Your task to perform on an android device: Open wifi settings Image 0: 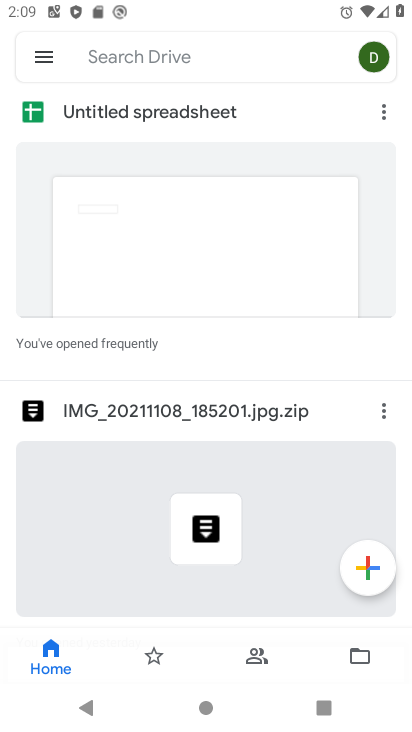
Step 0: press home button
Your task to perform on an android device: Open wifi settings Image 1: 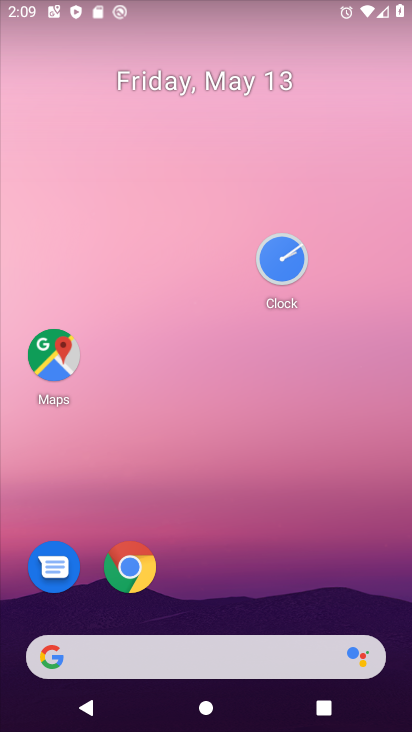
Step 1: drag from (217, 576) to (229, 256)
Your task to perform on an android device: Open wifi settings Image 2: 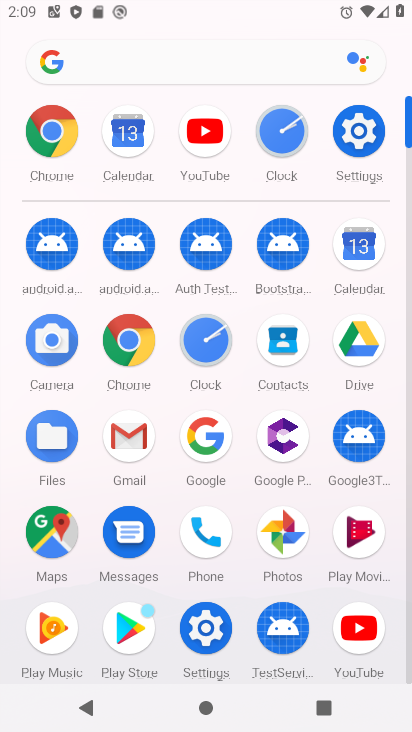
Step 2: click (353, 168)
Your task to perform on an android device: Open wifi settings Image 3: 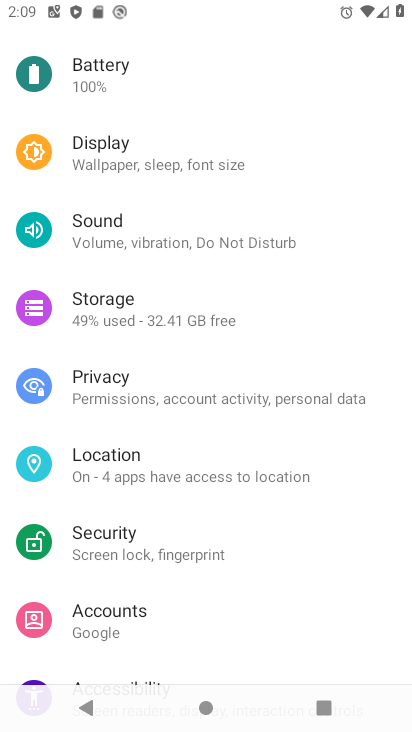
Step 3: drag from (146, 138) to (138, 462)
Your task to perform on an android device: Open wifi settings Image 4: 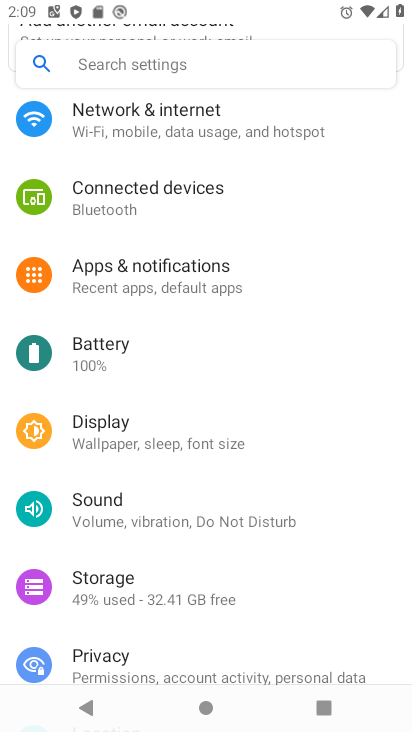
Step 4: click (194, 117)
Your task to perform on an android device: Open wifi settings Image 5: 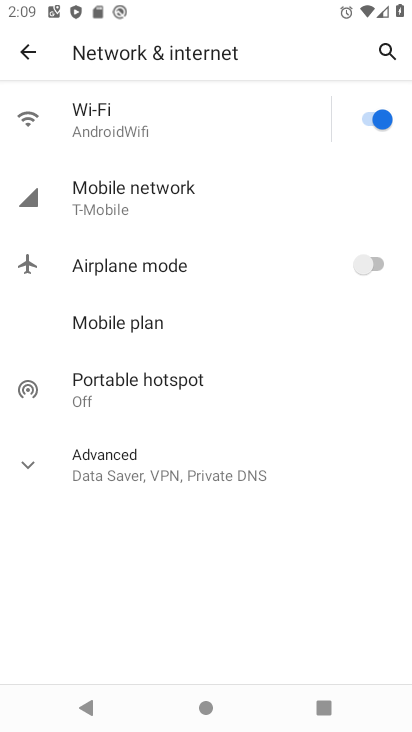
Step 5: click (199, 116)
Your task to perform on an android device: Open wifi settings Image 6: 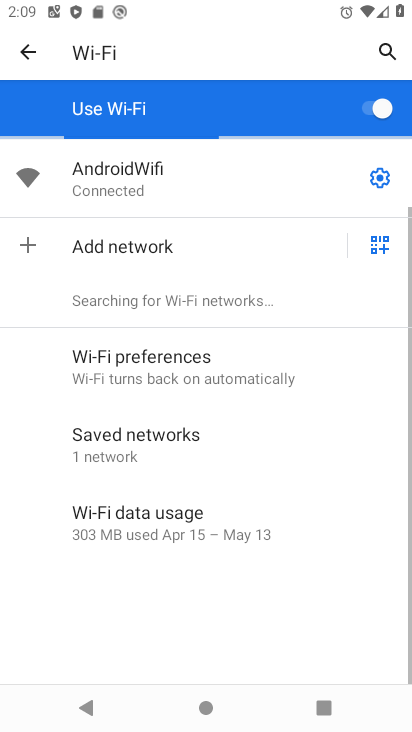
Step 6: task complete